Your task to perform on an android device: Open network settings Image 0: 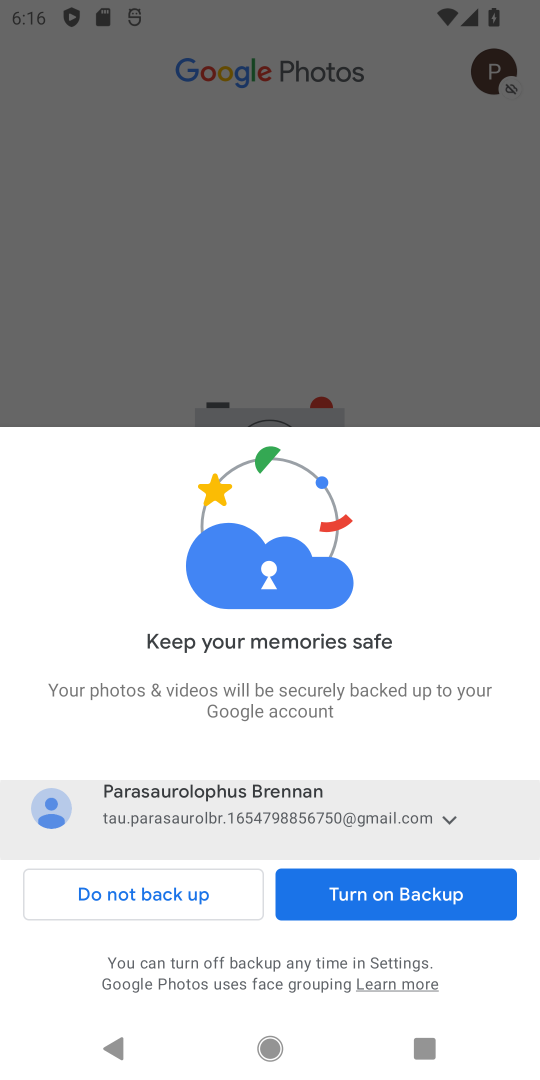
Step 0: press home button
Your task to perform on an android device: Open network settings Image 1: 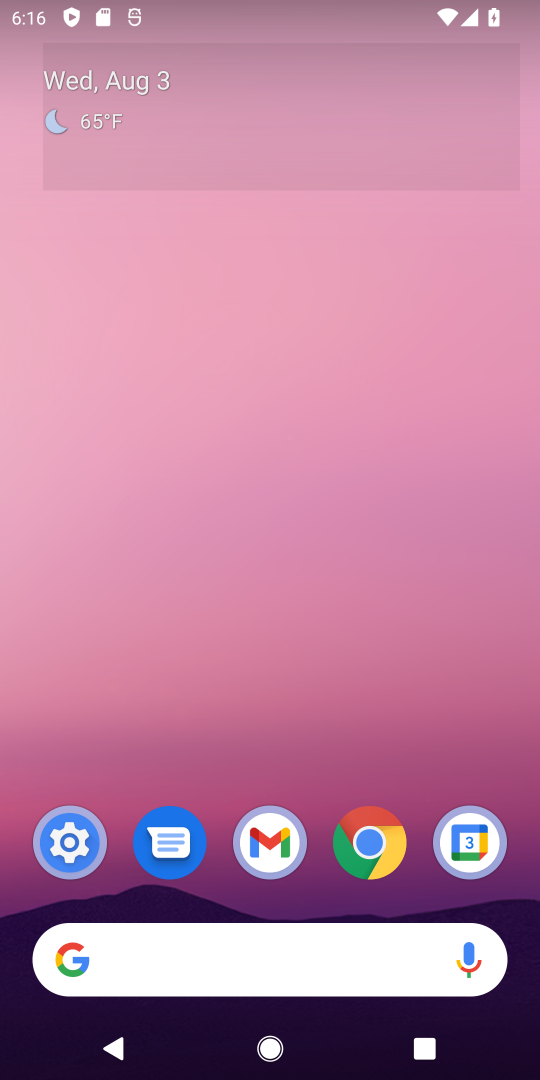
Step 1: click (45, 851)
Your task to perform on an android device: Open network settings Image 2: 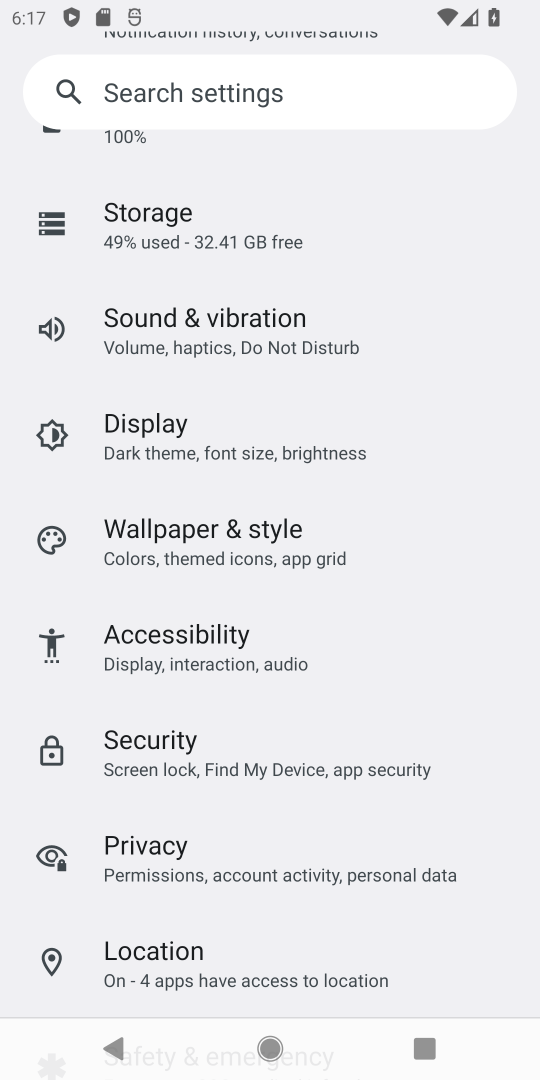
Step 2: drag from (256, 560) to (290, 956)
Your task to perform on an android device: Open network settings Image 3: 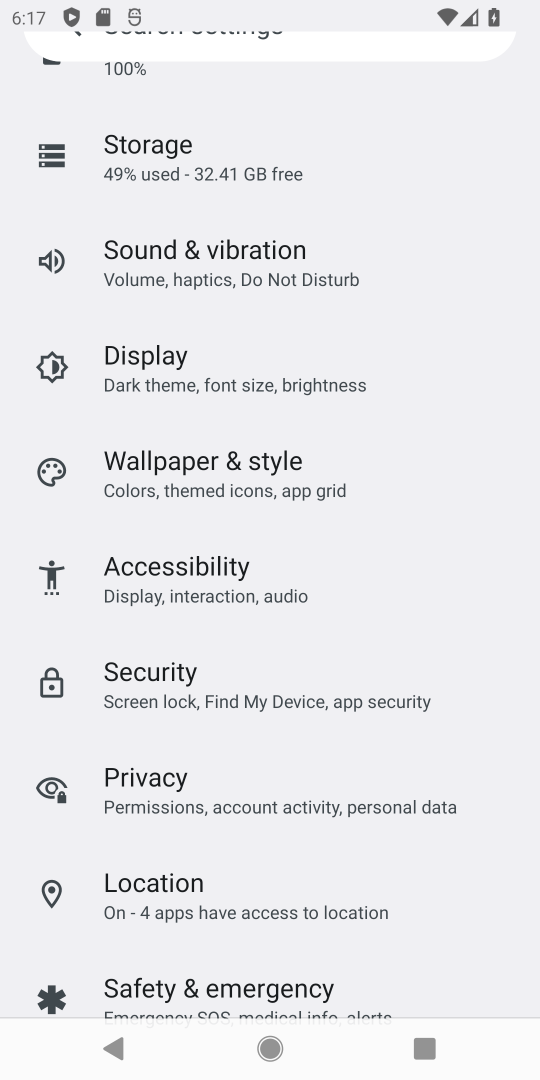
Step 3: drag from (331, 234) to (320, 947)
Your task to perform on an android device: Open network settings Image 4: 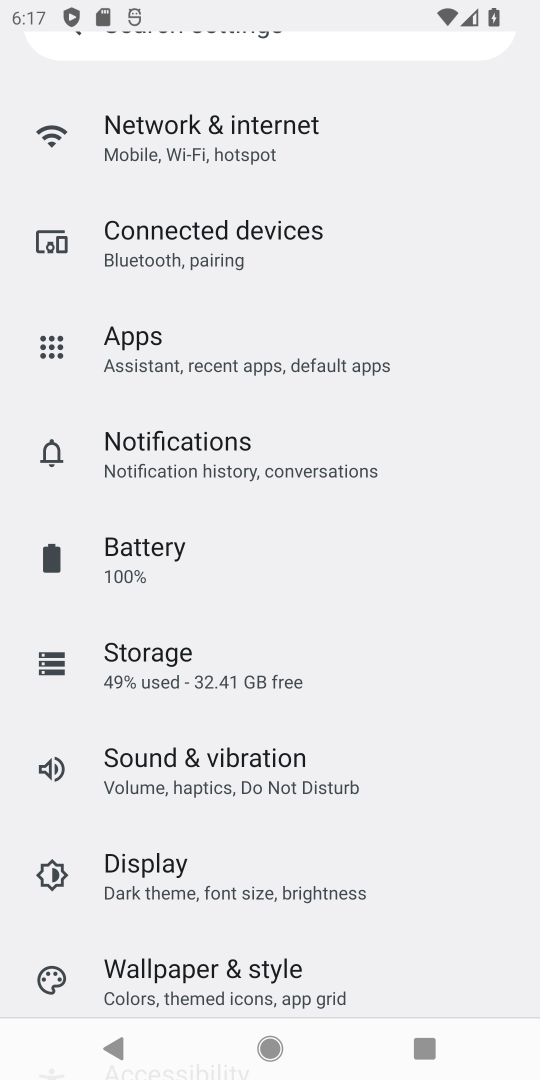
Step 4: click (289, 141)
Your task to perform on an android device: Open network settings Image 5: 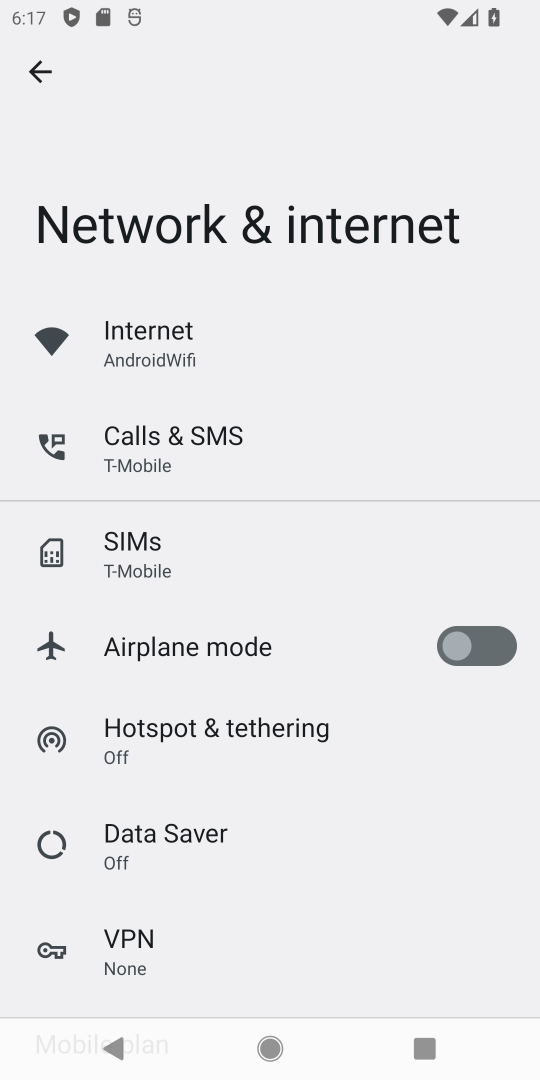
Step 5: task complete